Your task to perform on an android device: Open Google Chrome and open the bookmarks view Image 0: 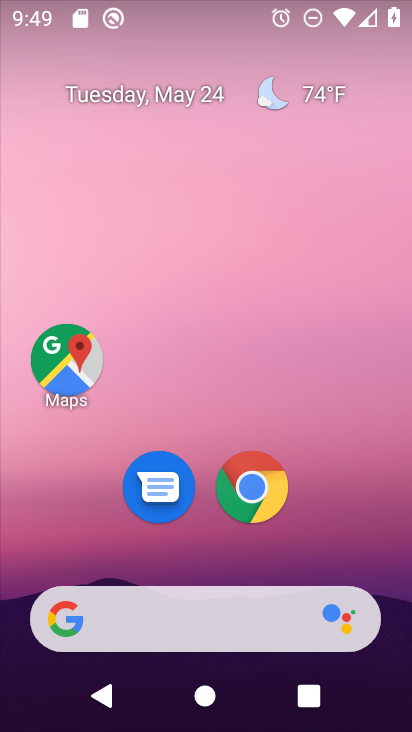
Step 0: click (211, 489)
Your task to perform on an android device: Open Google Chrome and open the bookmarks view Image 1: 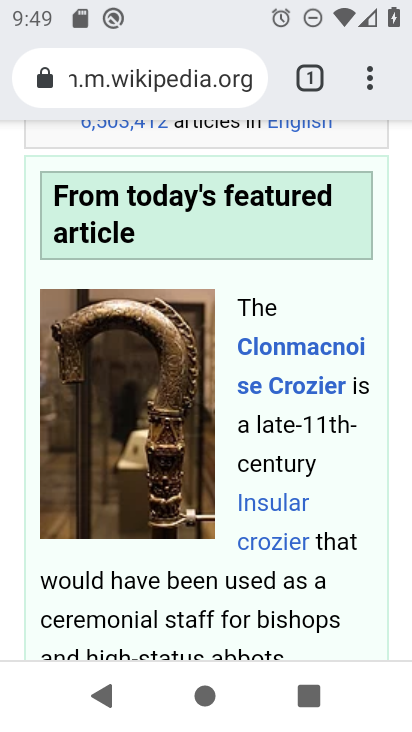
Step 1: click (371, 80)
Your task to perform on an android device: Open Google Chrome and open the bookmarks view Image 2: 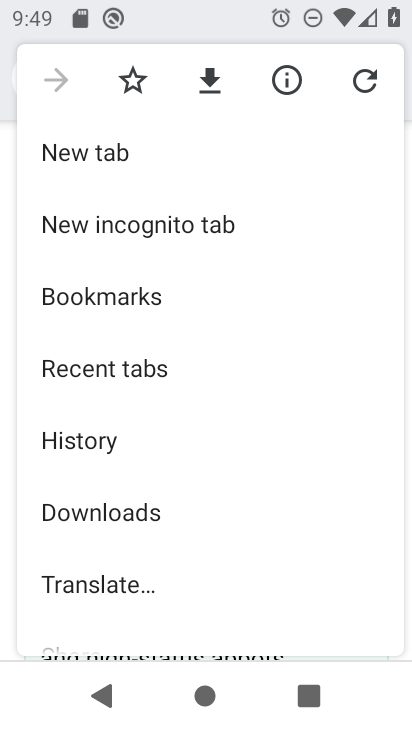
Step 2: click (139, 307)
Your task to perform on an android device: Open Google Chrome and open the bookmarks view Image 3: 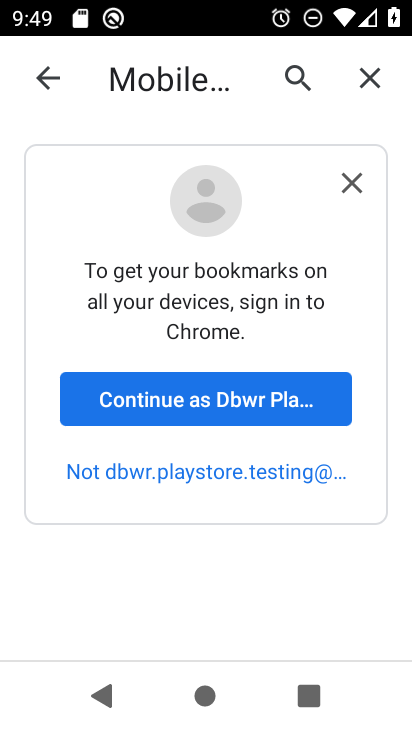
Step 3: click (161, 400)
Your task to perform on an android device: Open Google Chrome and open the bookmarks view Image 4: 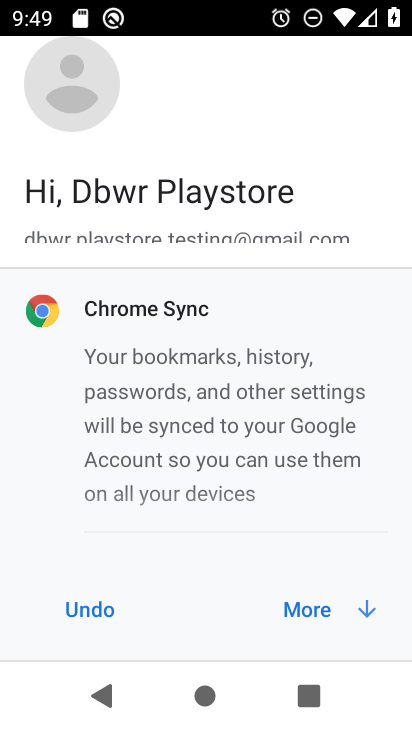
Step 4: click (310, 606)
Your task to perform on an android device: Open Google Chrome and open the bookmarks view Image 5: 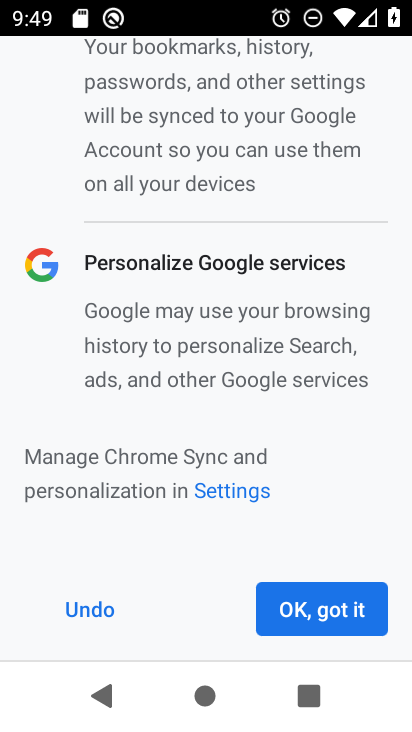
Step 5: click (310, 606)
Your task to perform on an android device: Open Google Chrome and open the bookmarks view Image 6: 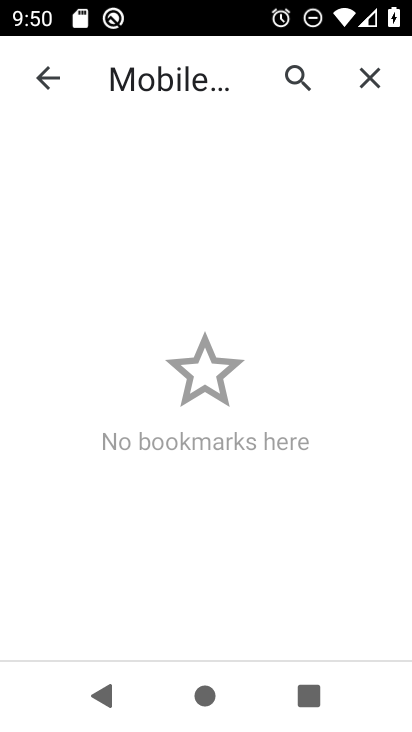
Step 6: task complete